Your task to perform on an android device: turn off data saver in the chrome app Image 0: 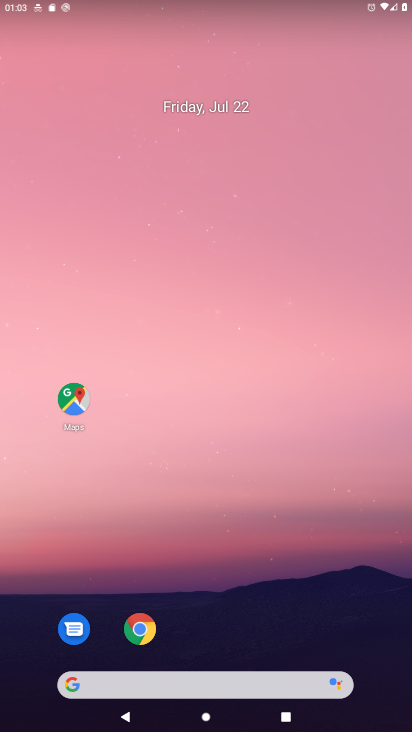
Step 0: click (146, 637)
Your task to perform on an android device: turn off data saver in the chrome app Image 1: 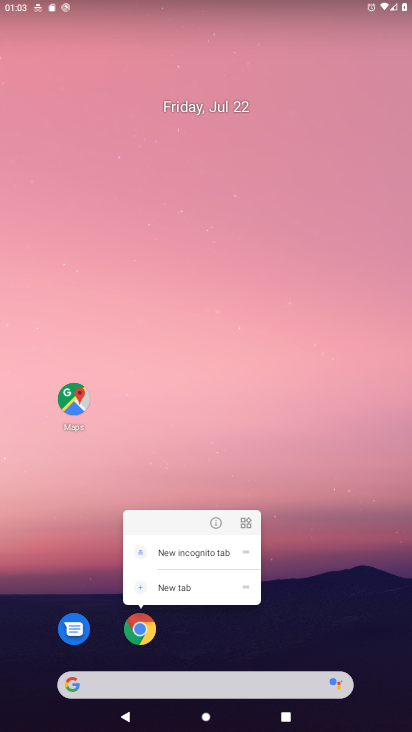
Step 1: click (146, 637)
Your task to perform on an android device: turn off data saver in the chrome app Image 2: 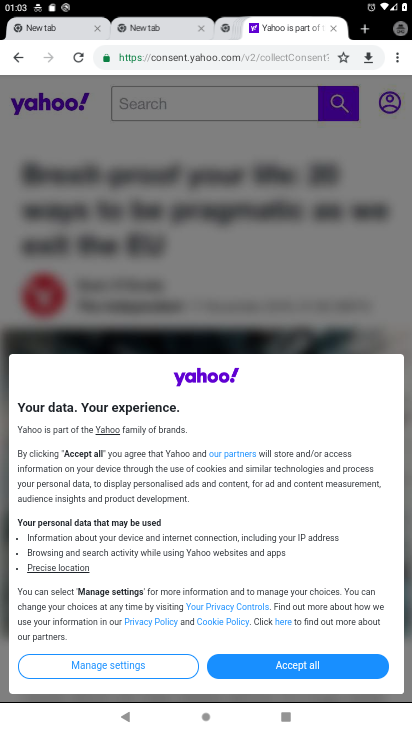
Step 2: click (398, 62)
Your task to perform on an android device: turn off data saver in the chrome app Image 3: 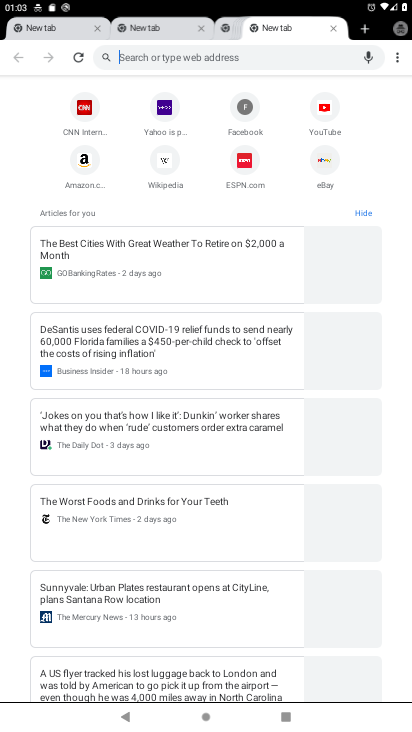
Step 3: click (405, 52)
Your task to perform on an android device: turn off data saver in the chrome app Image 4: 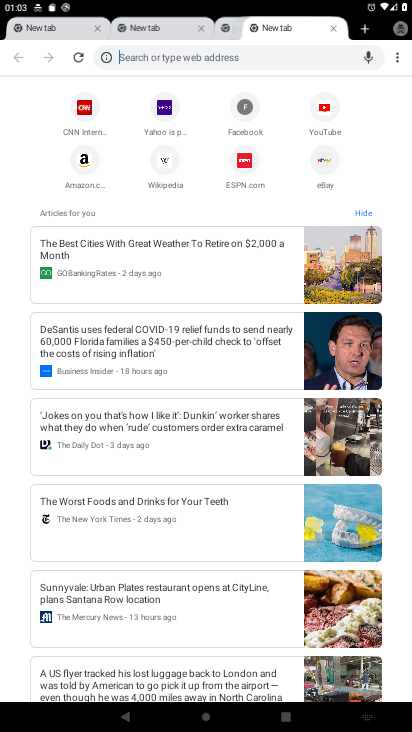
Step 4: click (391, 54)
Your task to perform on an android device: turn off data saver in the chrome app Image 5: 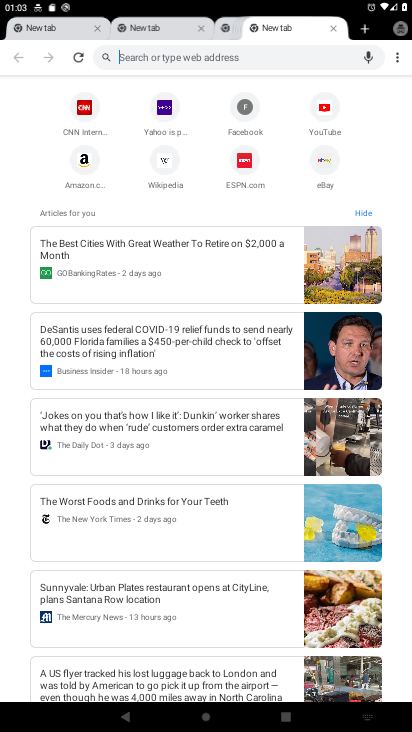
Step 5: click (398, 60)
Your task to perform on an android device: turn off data saver in the chrome app Image 6: 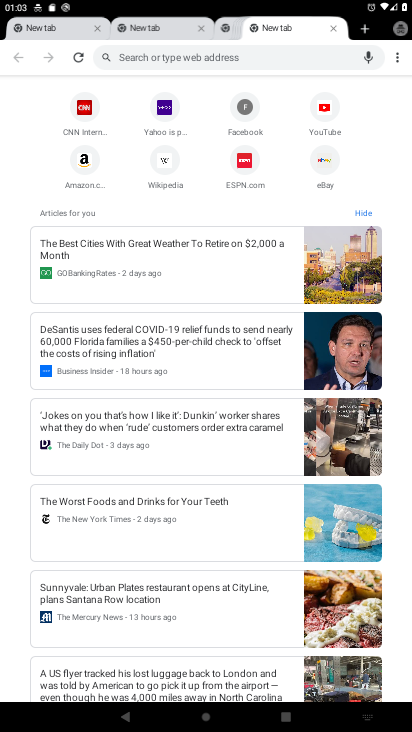
Step 6: click (406, 47)
Your task to perform on an android device: turn off data saver in the chrome app Image 7: 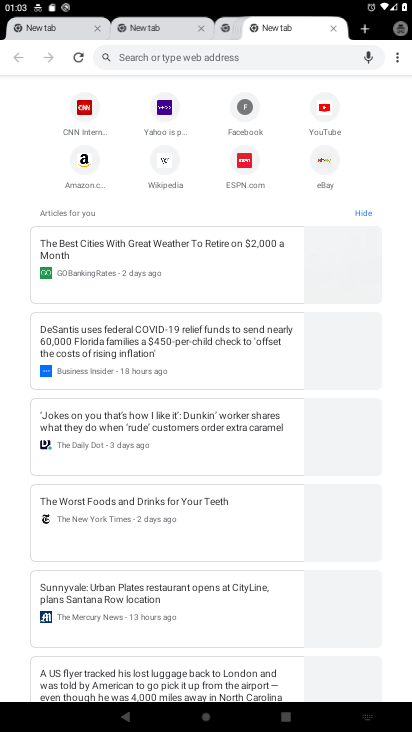
Step 7: click (404, 52)
Your task to perform on an android device: turn off data saver in the chrome app Image 8: 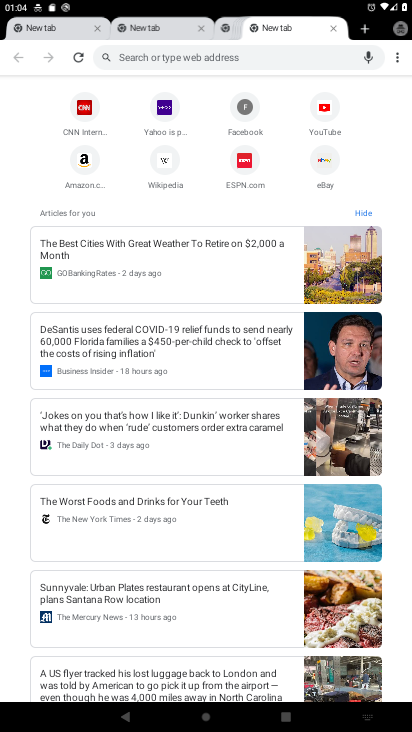
Step 8: click (404, 52)
Your task to perform on an android device: turn off data saver in the chrome app Image 9: 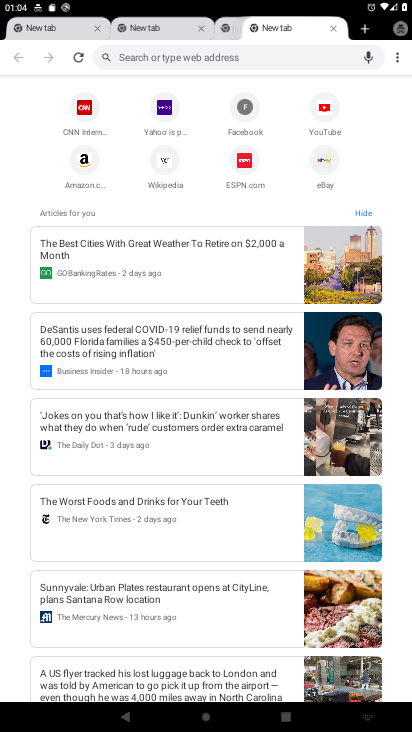
Step 9: click (392, 54)
Your task to perform on an android device: turn off data saver in the chrome app Image 10: 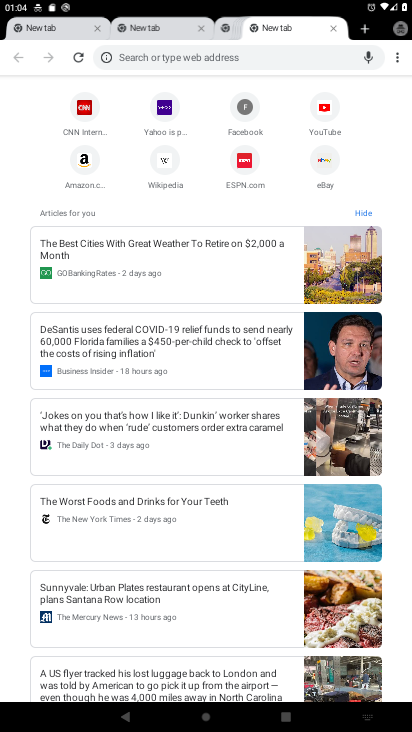
Step 10: click (400, 55)
Your task to perform on an android device: turn off data saver in the chrome app Image 11: 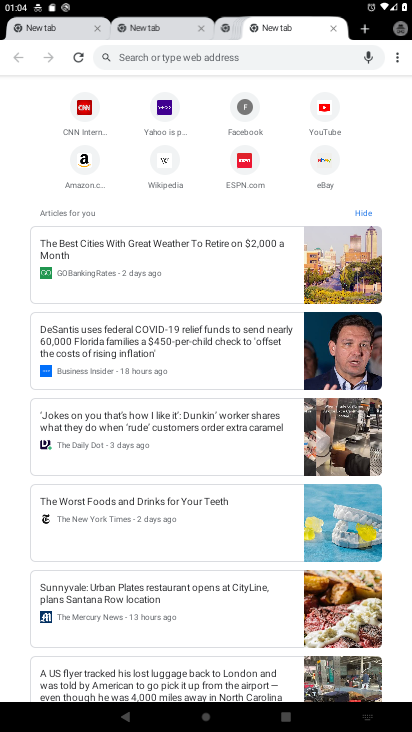
Step 11: click (401, 51)
Your task to perform on an android device: turn off data saver in the chrome app Image 12: 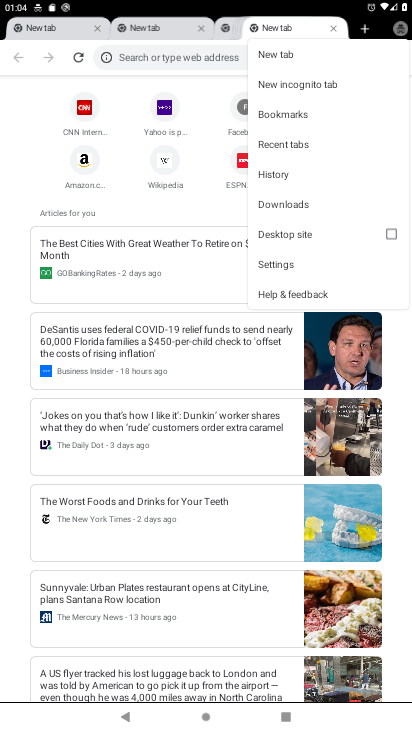
Step 12: click (290, 262)
Your task to perform on an android device: turn off data saver in the chrome app Image 13: 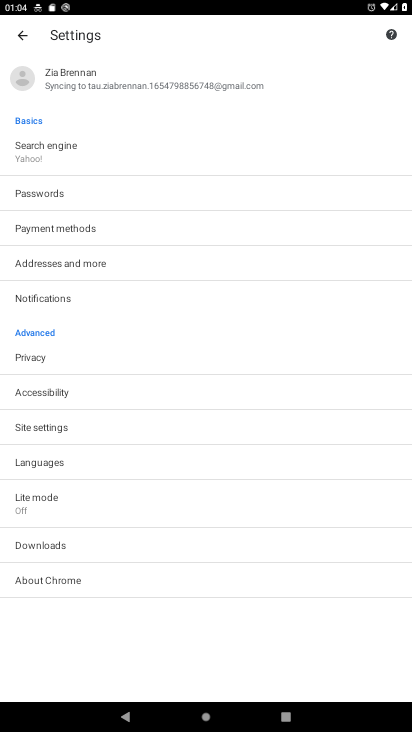
Step 13: click (76, 505)
Your task to perform on an android device: turn off data saver in the chrome app Image 14: 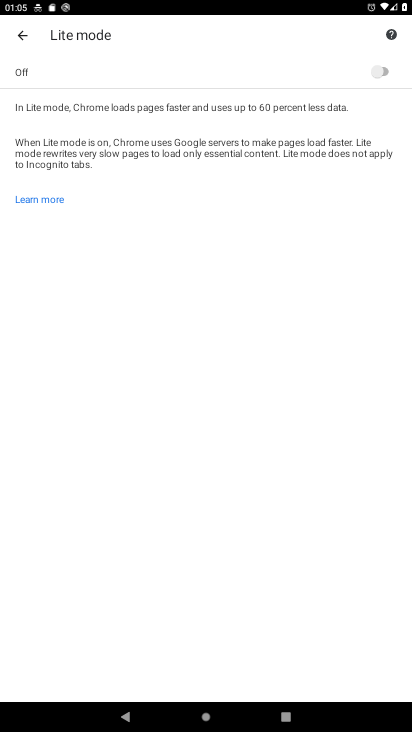
Step 14: task complete